Your task to perform on an android device: Open Android settings Image 0: 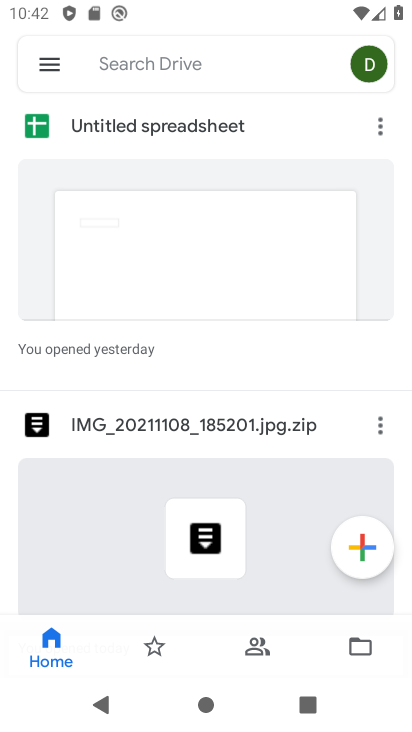
Step 0: press home button
Your task to perform on an android device: Open Android settings Image 1: 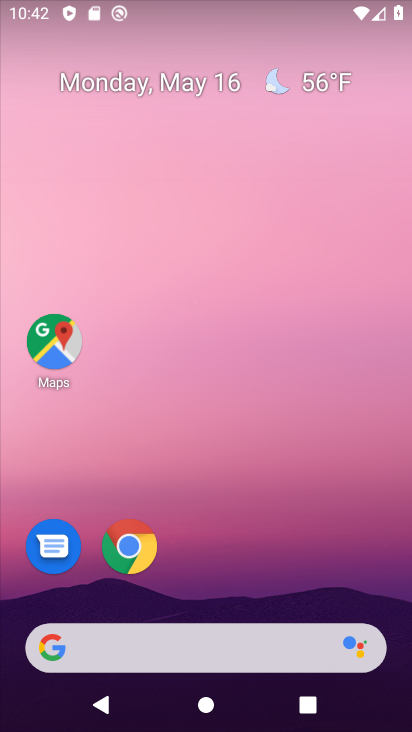
Step 1: drag from (313, 557) to (255, 120)
Your task to perform on an android device: Open Android settings Image 2: 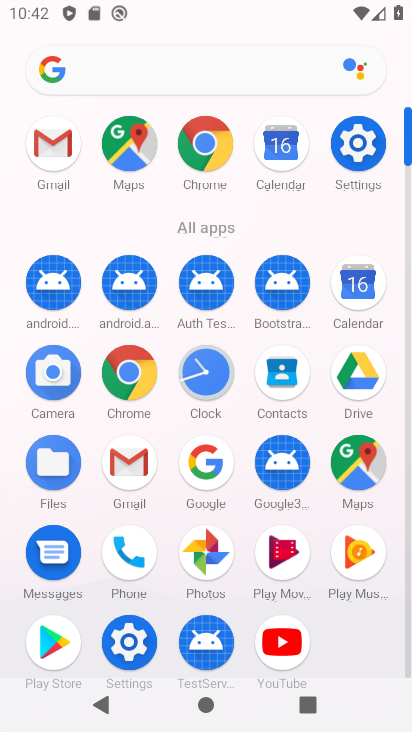
Step 2: click (359, 171)
Your task to perform on an android device: Open Android settings Image 3: 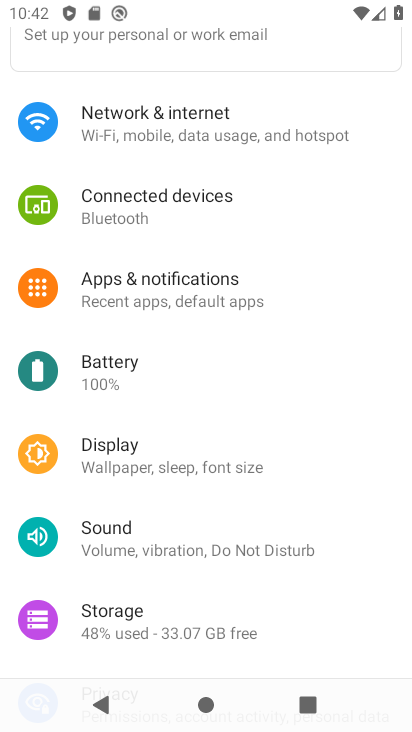
Step 3: task complete